Your task to perform on an android device: turn on priority inbox in the gmail app Image 0: 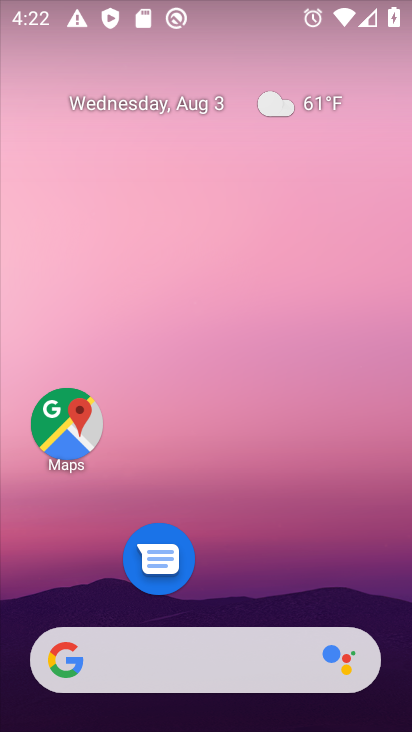
Step 0: drag from (197, 620) to (149, 175)
Your task to perform on an android device: turn on priority inbox in the gmail app Image 1: 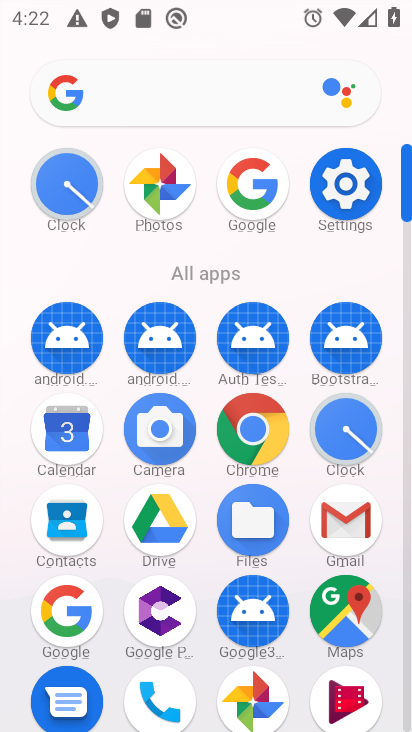
Step 1: click (331, 528)
Your task to perform on an android device: turn on priority inbox in the gmail app Image 2: 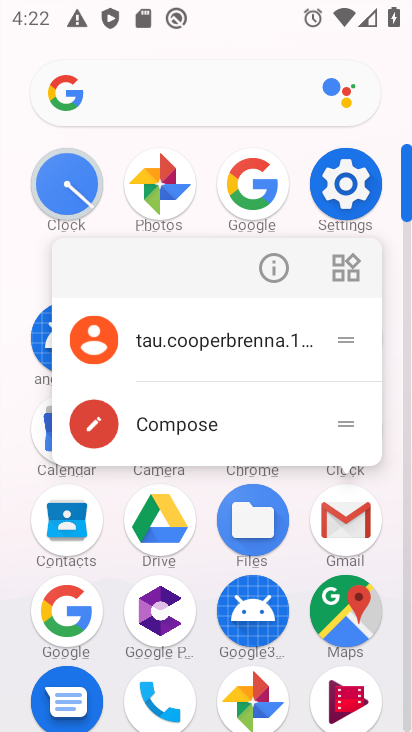
Step 2: click (330, 526)
Your task to perform on an android device: turn on priority inbox in the gmail app Image 3: 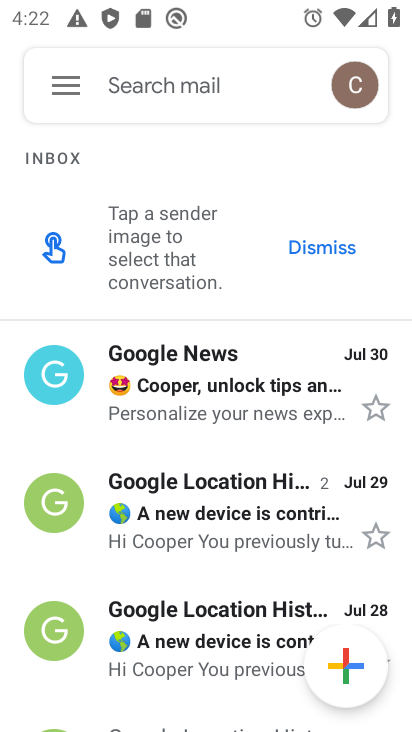
Step 3: click (60, 92)
Your task to perform on an android device: turn on priority inbox in the gmail app Image 4: 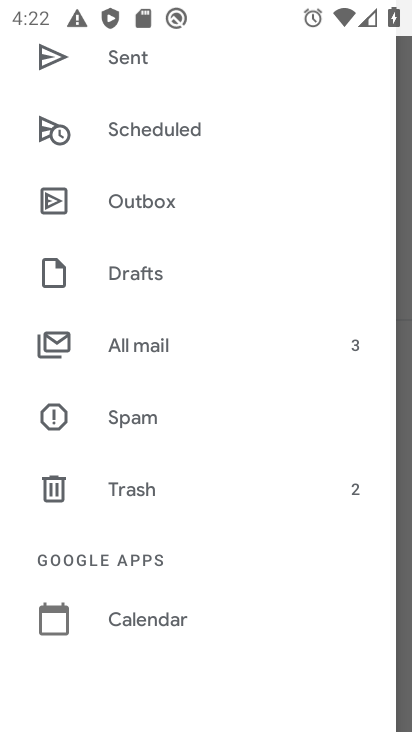
Step 4: drag from (144, 205) to (144, 150)
Your task to perform on an android device: turn on priority inbox in the gmail app Image 5: 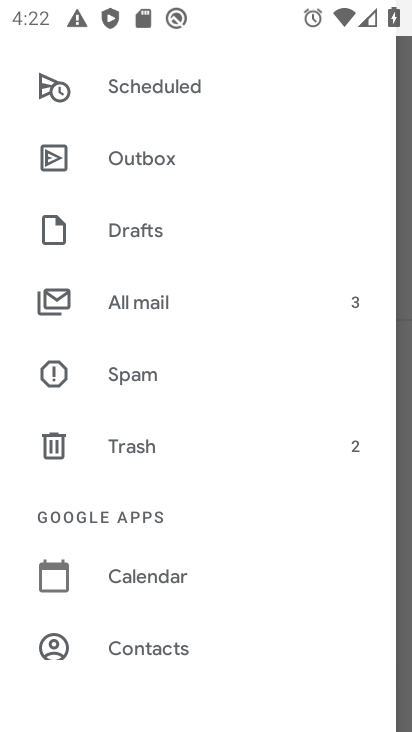
Step 5: drag from (139, 643) to (129, 181)
Your task to perform on an android device: turn on priority inbox in the gmail app Image 6: 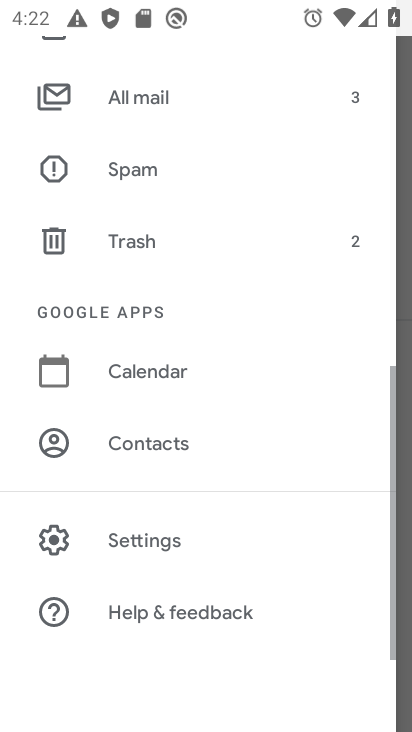
Step 6: click (164, 541)
Your task to perform on an android device: turn on priority inbox in the gmail app Image 7: 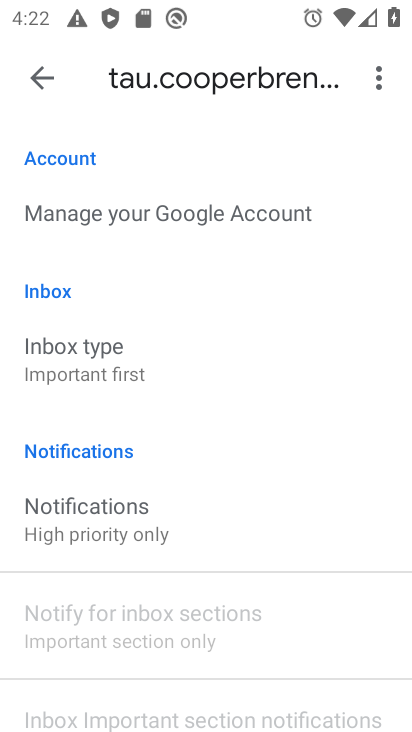
Step 7: click (92, 357)
Your task to perform on an android device: turn on priority inbox in the gmail app Image 8: 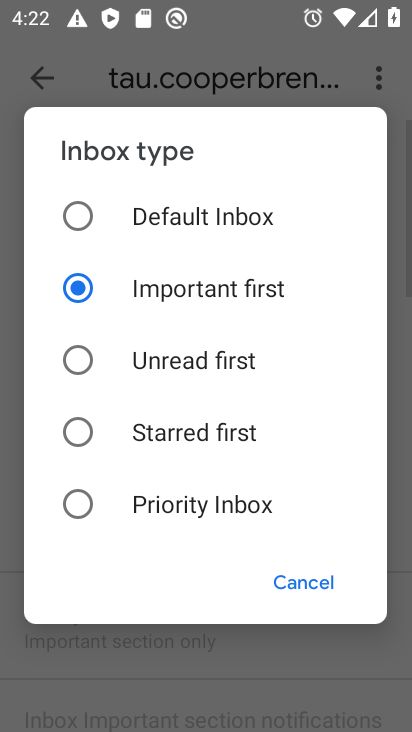
Step 8: click (150, 504)
Your task to perform on an android device: turn on priority inbox in the gmail app Image 9: 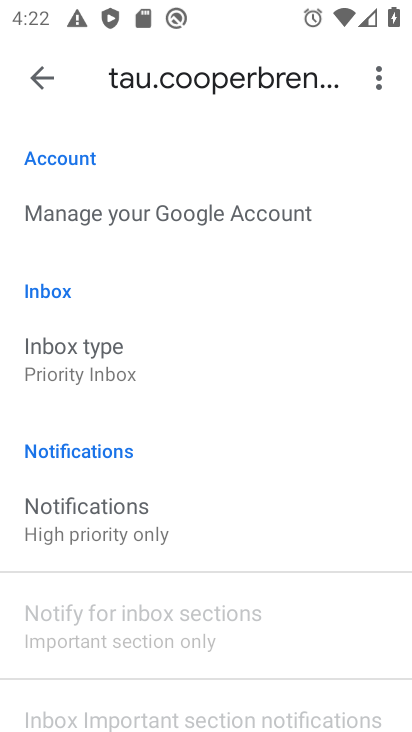
Step 9: task complete